Your task to perform on an android device: toggle translation in the chrome app Image 0: 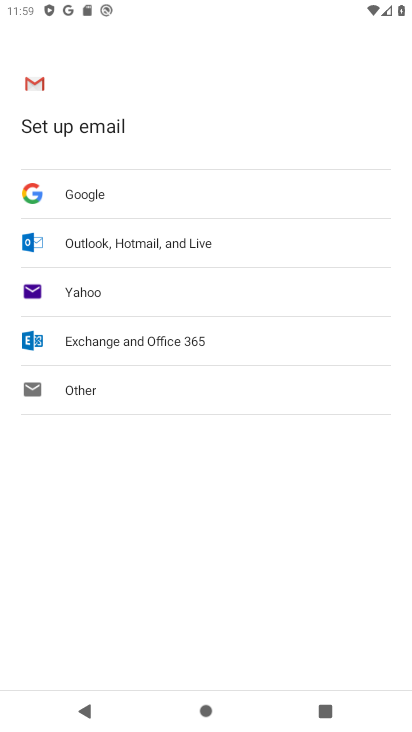
Step 0: press home button
Your task to perform on an android device: toggle translation in the chrome app Image 1: 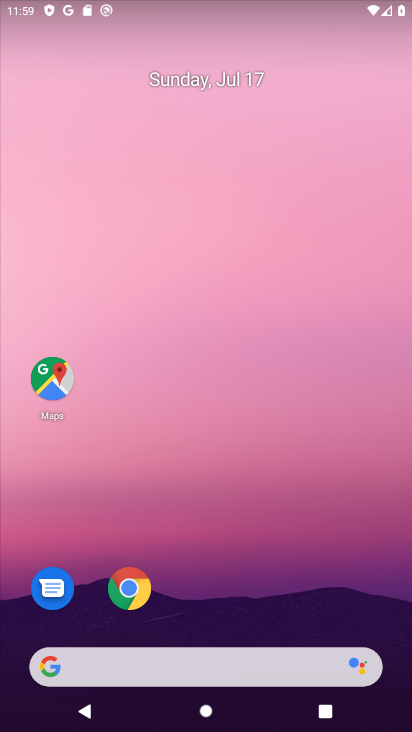
Step 1: click (127, 583)
Your task to perform on an android device: toggle translation in the chrome app Image 2: 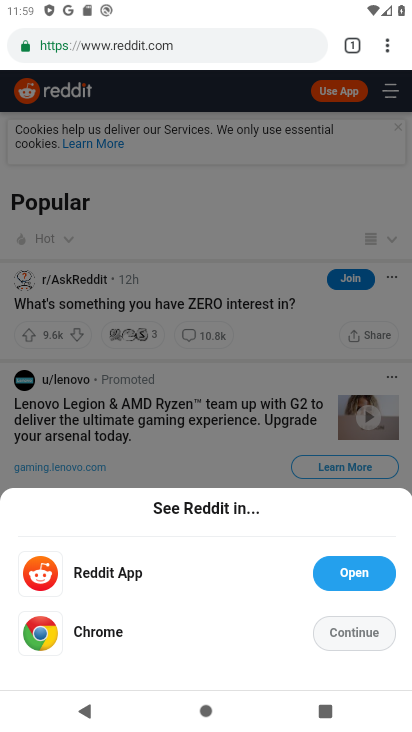
Step 2: click (388, 42)
Your task to perform on an android device: toggle translation in the chrome app Image 3: 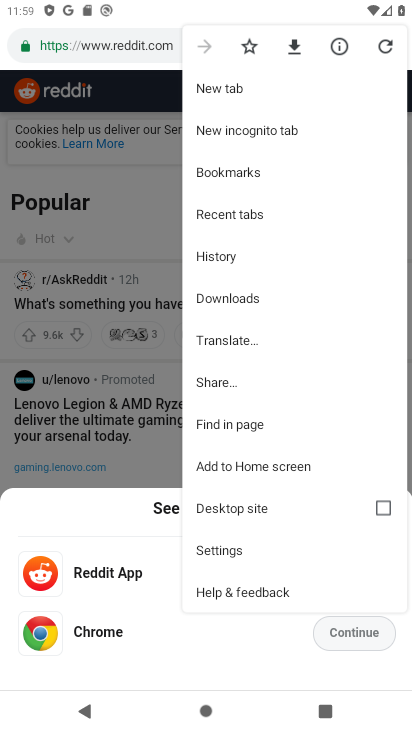
Step 3: click (202, 548)
Your task to perform on an android device: toggle translation in the chrome app Image 4: 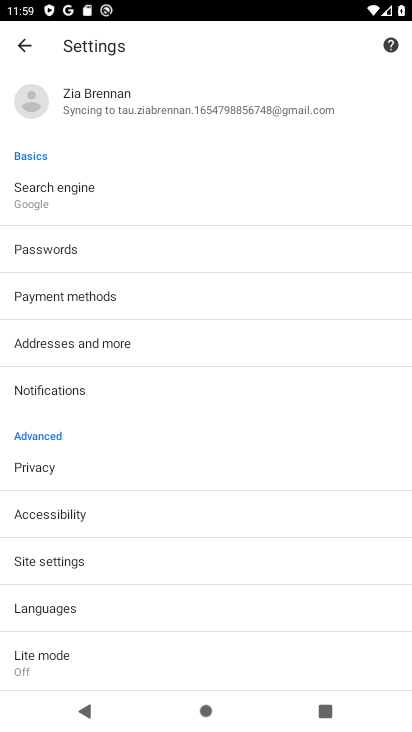
Step 4: click (103, 608)
Your task to perform on an android device: toggle translation in the chrome app Image 5: 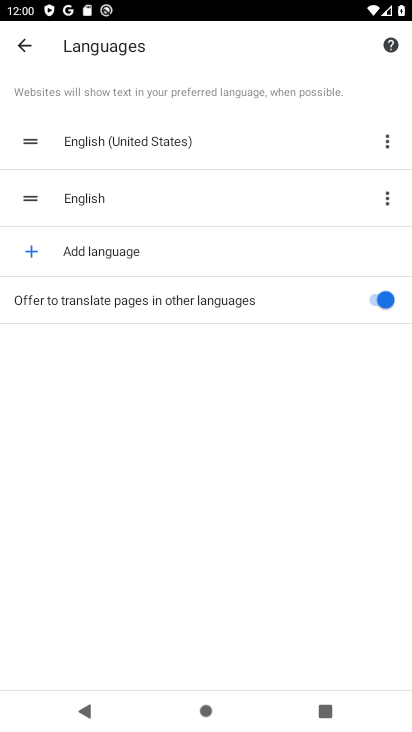
Step 5: click (379, 296)
Your task to perform on an android device: toggle translation in the chrome app Image 6: 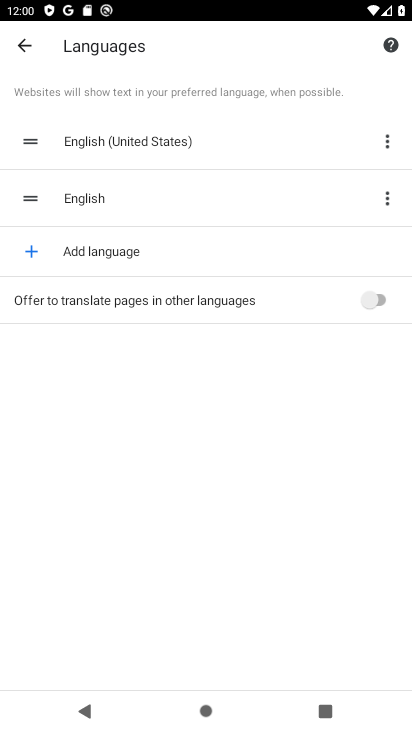
Step 6: task complete